Your task to perform on an android device: Open wifi settings Image 0: 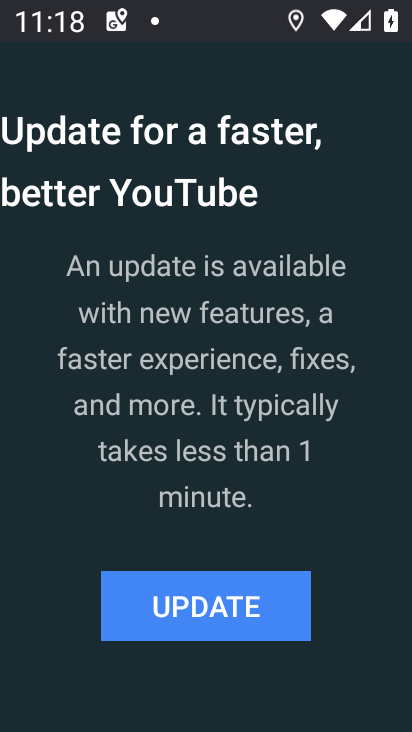
Step 0: press home button
Your task to perform on an android device: Open wifi settings Image 1: 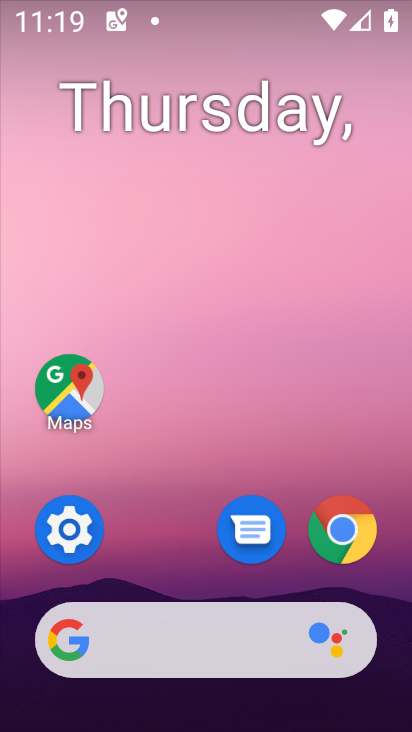
Step 1: click (72, 531)
Your task to perform on an android device: Open wifi settings Image 2: 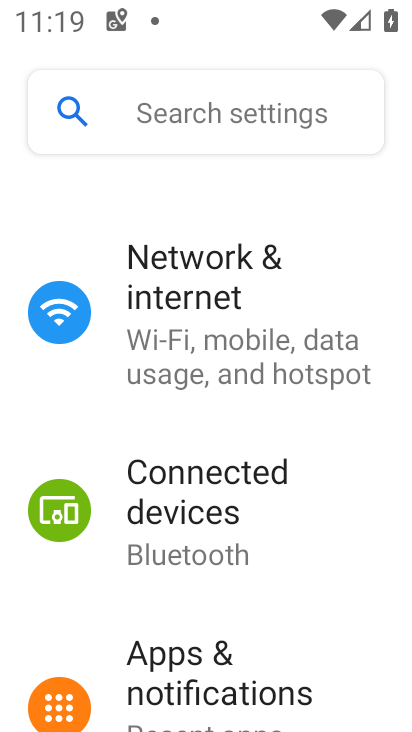
Step 2: click (87, 535)
Your task to perform on an android device: Open wifi settings Image 3: 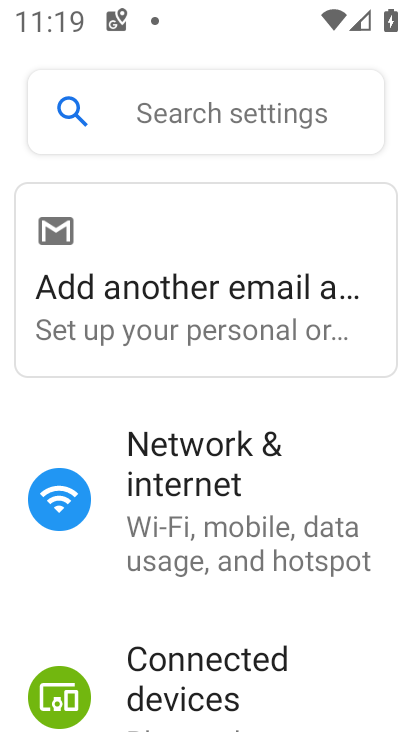
Step 3: click (197, 523)
Your task to perform on an android device: Open wifi settings Image 4: 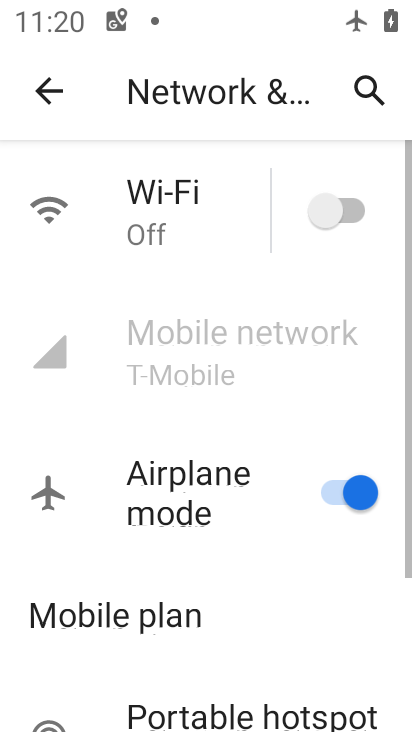
Step 4: click (186, 232)
Your task to perform on an android device: Open wifi settings Image 5: 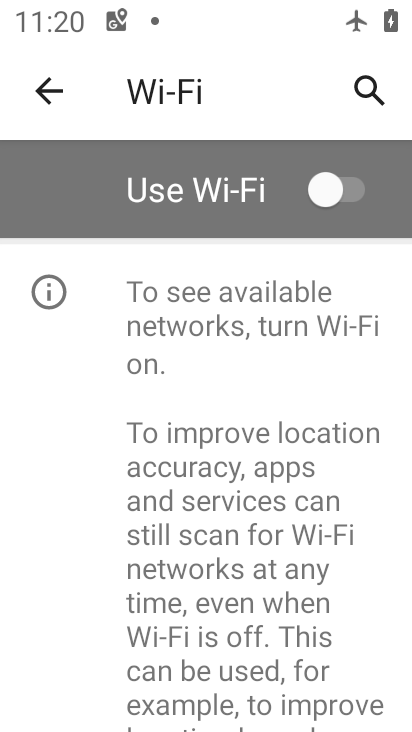
Step 5: task complete